Your task to perform on an android device: See recent photos Image 0: 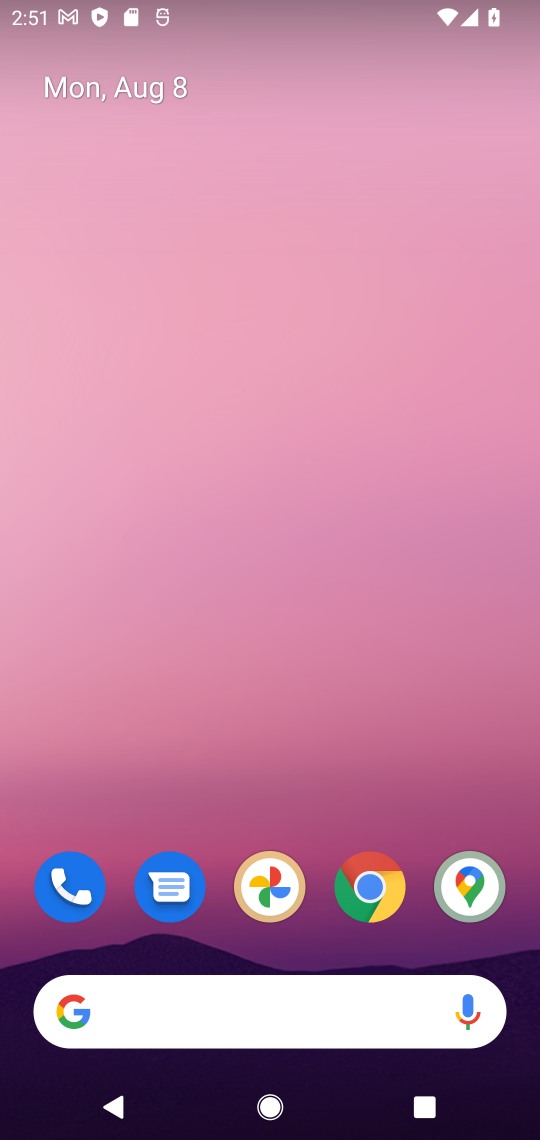
Step 0: drag from (270, 997) to (325, 389)
Your task to perform on an android device: See recent photos Image 1: 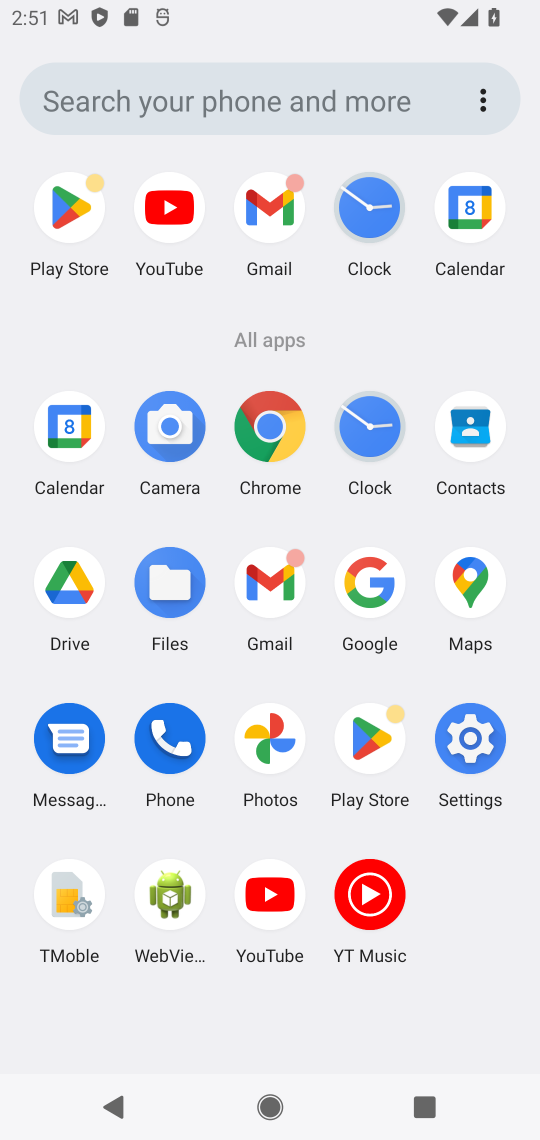
Step 1: click (263, 737)
Your task to perform on an android device: See recent photos Image 2: 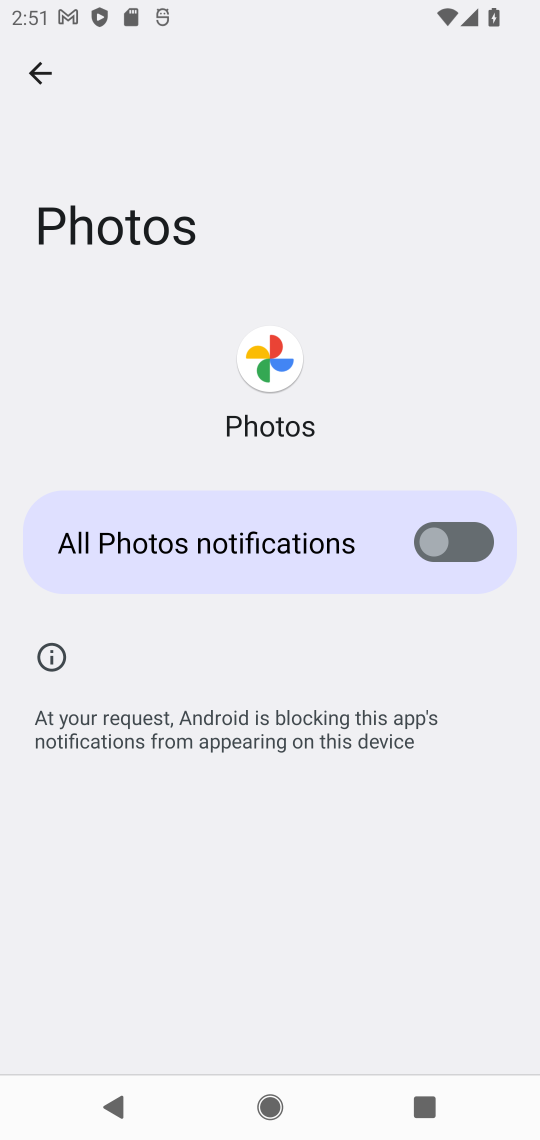
Step 2: click (41, 78)
Your task to perform on an android device: See recent photos Image 3: 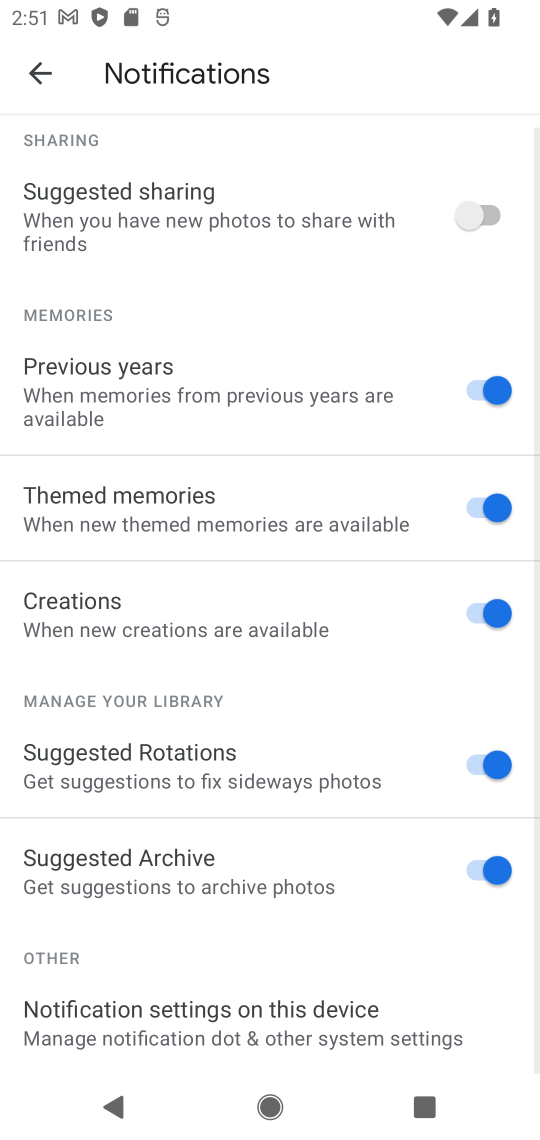
Step 3: click (44, 65)
Your task to perform on an android device: See recent photos Image 4: 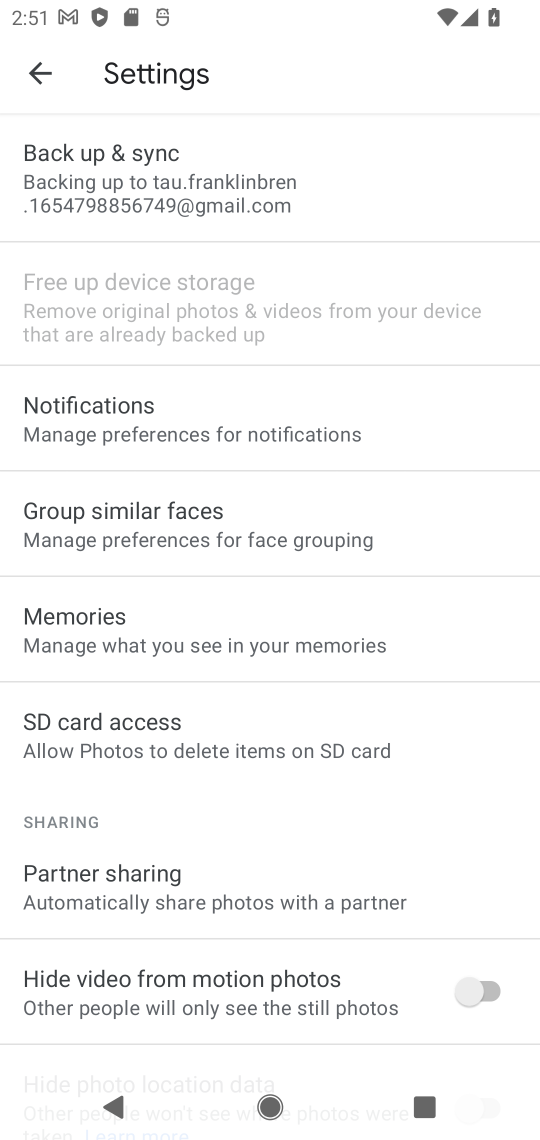
Step 4: click (32, 71)
Your task to perform on an android device: See recent photos Image 5: 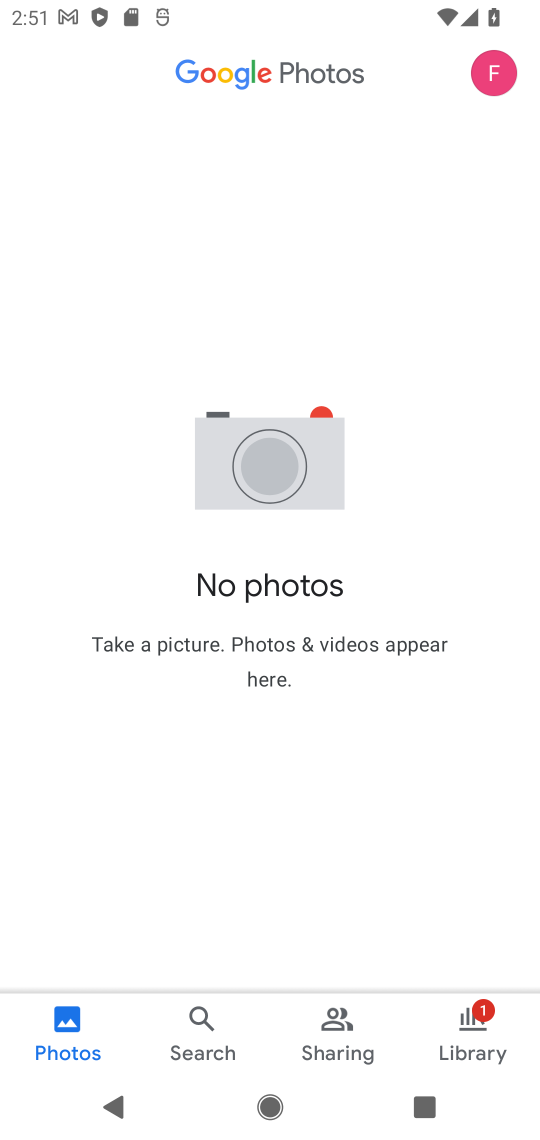
Step 5: task complete